Your task to perform on an android device: Go to Yahoo.com Image 0: 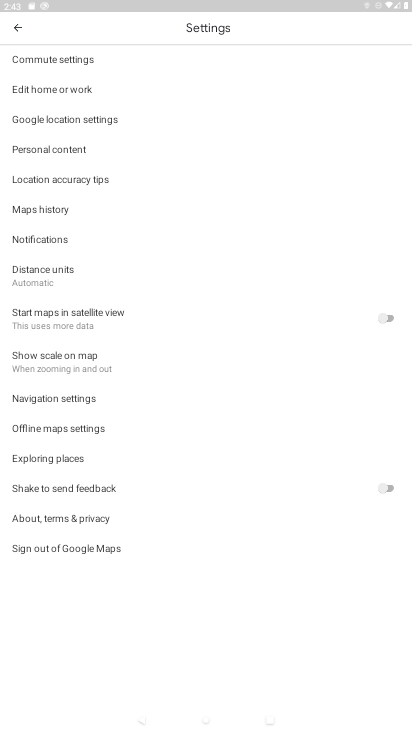
Step 0: press home button
Your task to perform on an android device: Go to Yahoo.com Image 1: 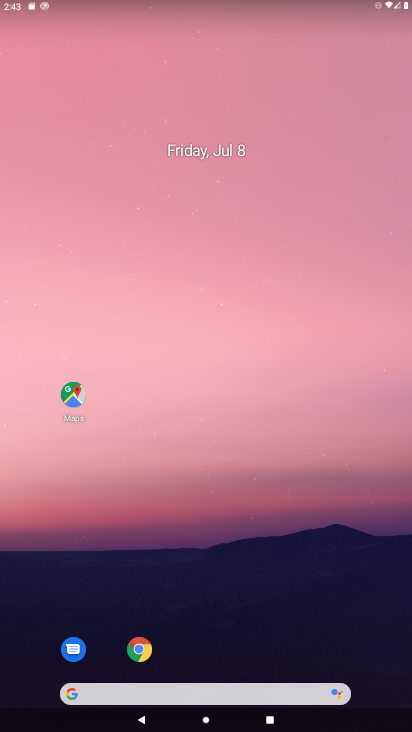
Step 1: click (137, 649)
Your task to perform on an android device: Go to Yahoo.com Image 2: 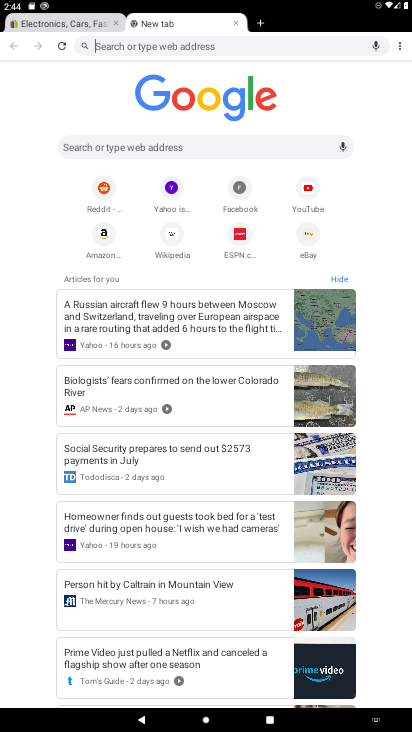
Step 2: click (115, 141)
Your task to perform on an android device: Go to Yahoo.com Image 3: 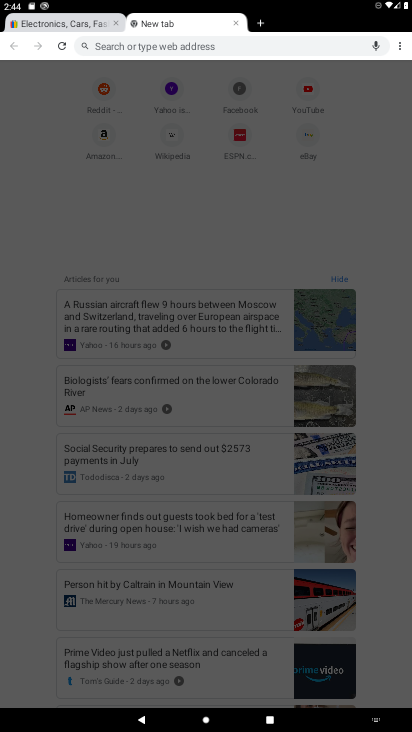
Step 3: type "Yahoo.com"
Your task to perform on an android device: Go to Yahoo.com Image 4: 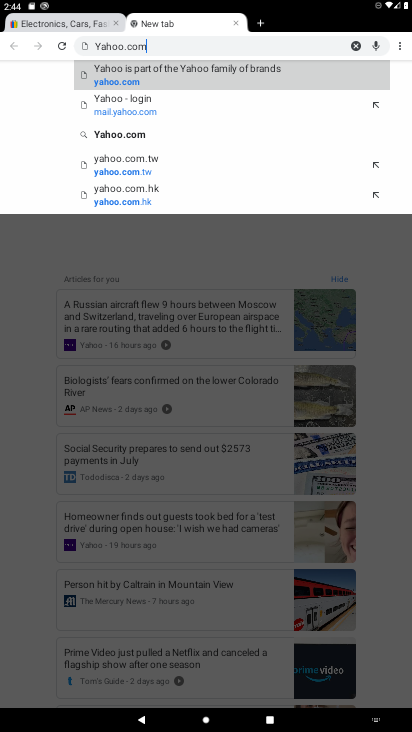
Step 4: click (104, 66)
Your task to perform on an android device: Go to Yahoo.com Image 5: 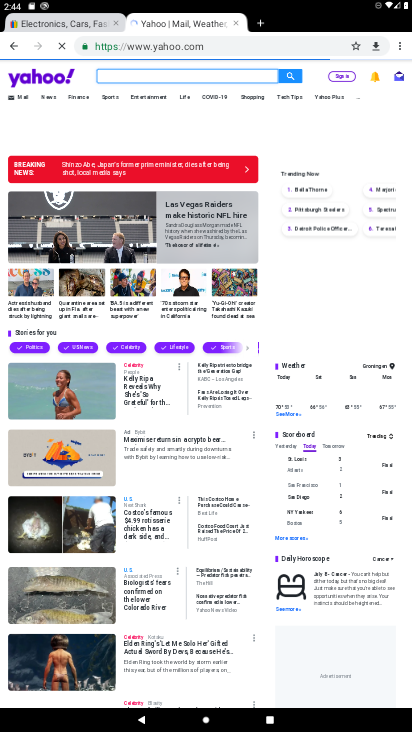
Step 5: task complete